Your task to perform on an android device: Open accessibility settings Image 0: 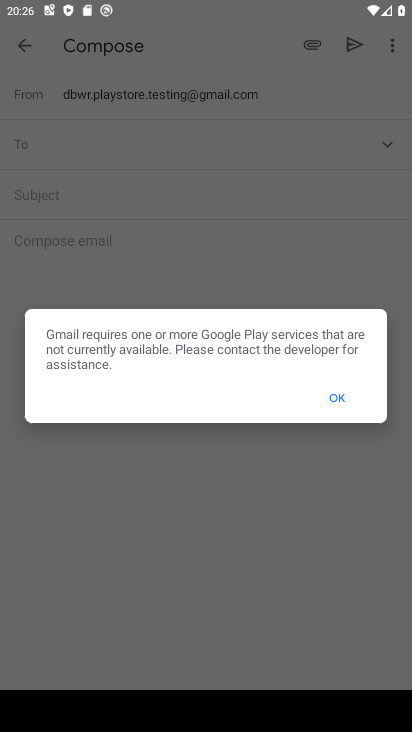
Step 0: press home button
Your task to perform on an android device: Open accessibility settings Image 1: 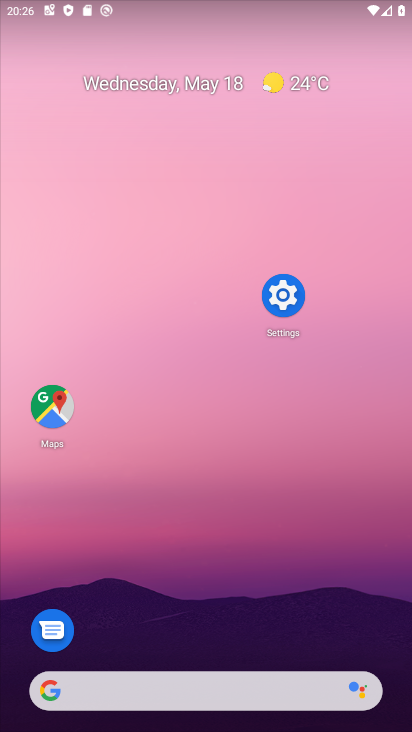
Step 1: drag from (137, 667) to (139, 371)
Your task to perform on an android device: Open accessibility settings Image 2: 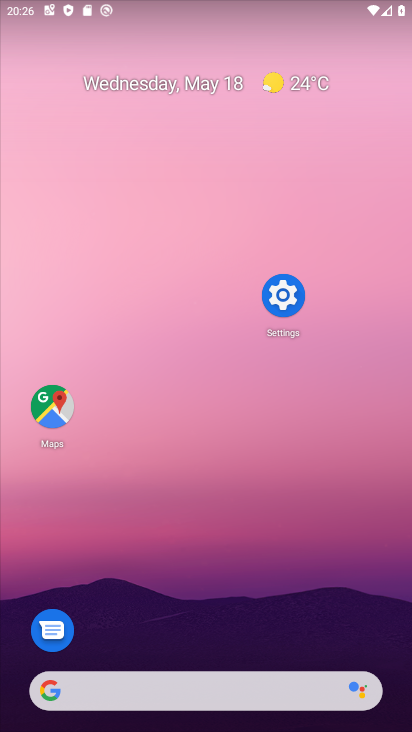
Step 2: click (289, 287)
Your task to perform on an android device: Open accessibility settings Image 3: 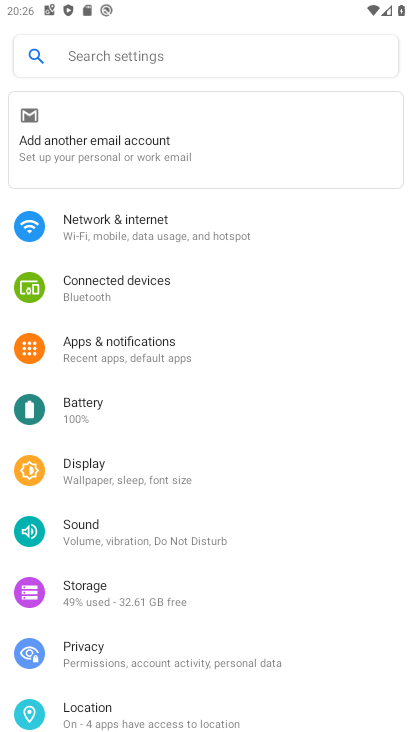
Step 3: drag from (146, 705) to (152, 427)
Your task to perform on an android device: Open accessibility settings Image 4: 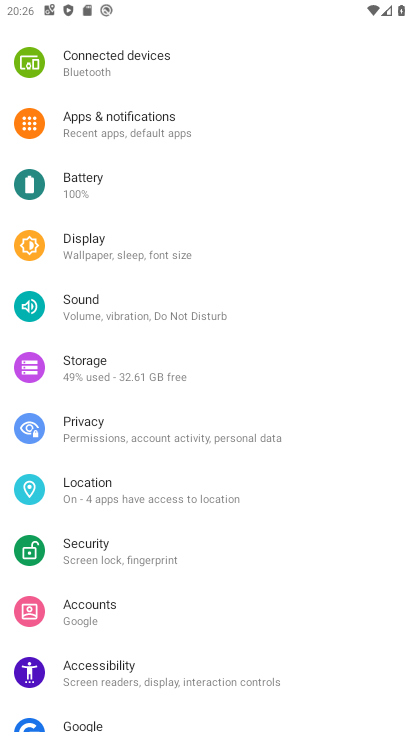
Step 4: click (123, 664)
Your task to perform on an android device: Open accessibility settings Image 5: 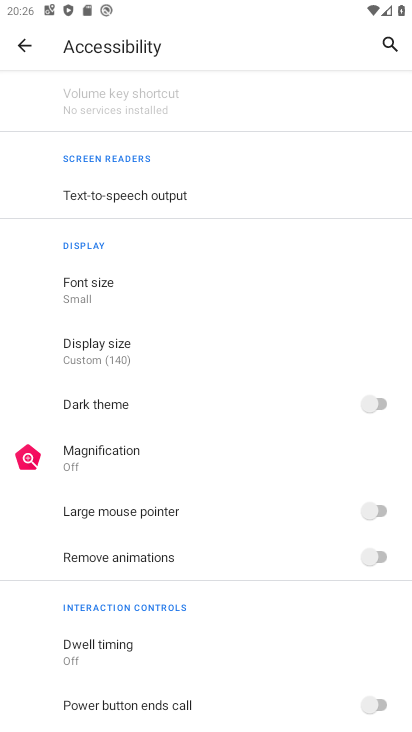
Step 5: task complete